Your task to perform on an android device: Go to battery settings Image 0: 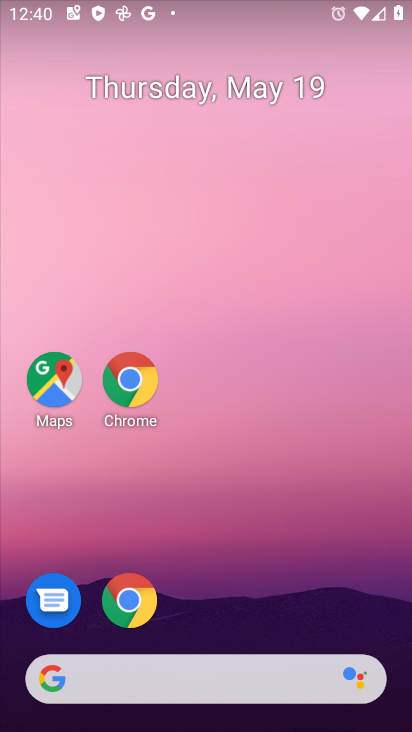
Step 0: drag from (372, 675) to (167, 196)
Your task to perform on an android device: Go to battery settings Image 1: 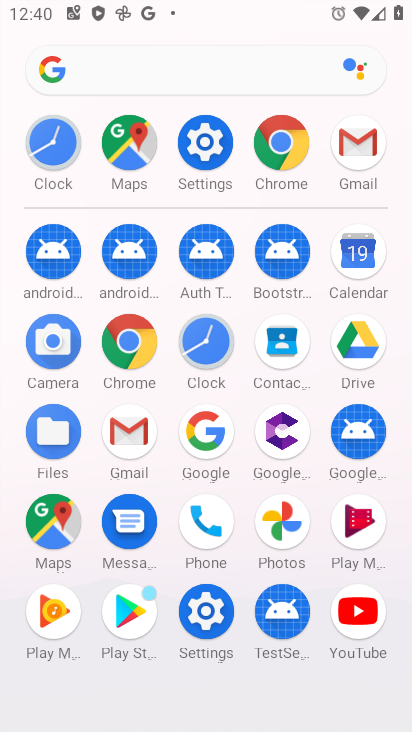
Step 1: click (197, 149)
Your task to perform on an android device: Go to battery settings Image 2: 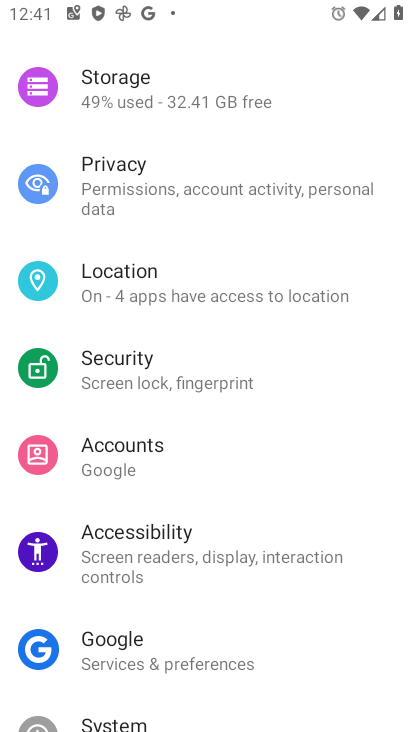
Step 2: drag from (128, 219) to (271, 613)
Your task to perform on an android device: Go to battery settings Image 3: 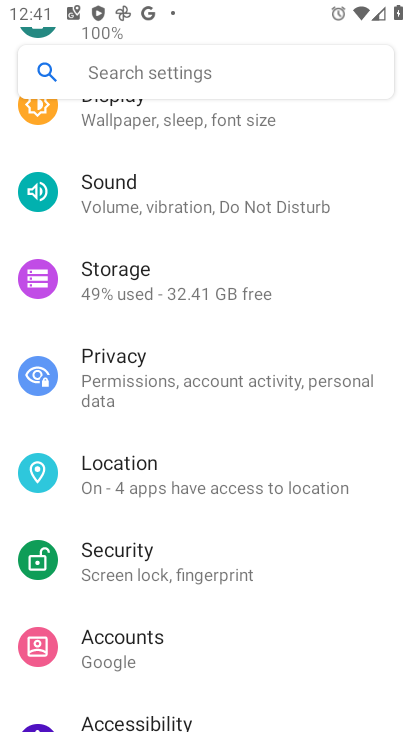
Step 3: drag from (131, 204) to (159, 465)
Your task to perform on an android device: Go to battery settings Image 4: 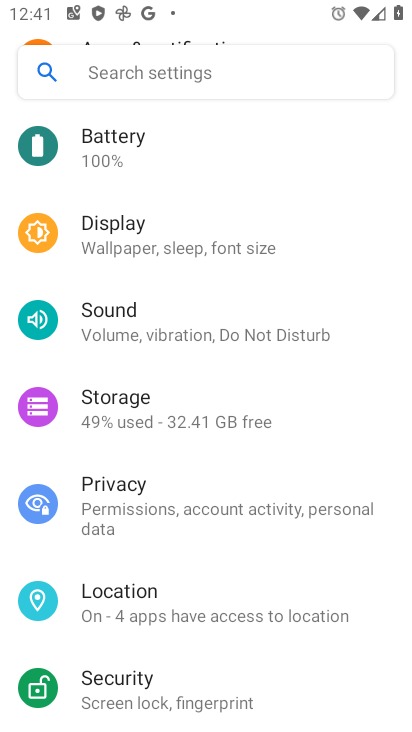
Step 4: drag from (115, 207) to (189, 470)
Your task to perform on an android device: Go to battery settings Image 5: 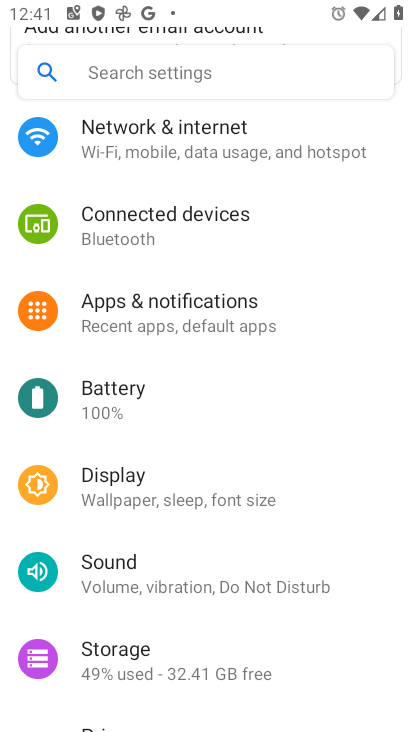
Step 5: drag from (126, 274) to (190, 504)
Your task to perform on an android device: Go to battery settings Image 6: 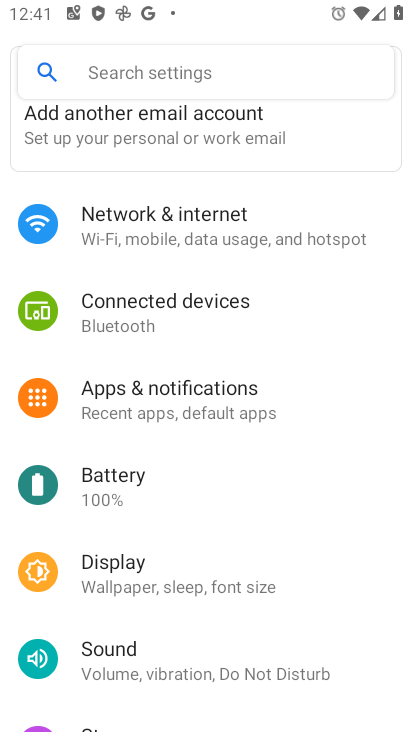
Step 6: click (68, 475)
Your task to perform on an android device: Go to battery settings Image 7: 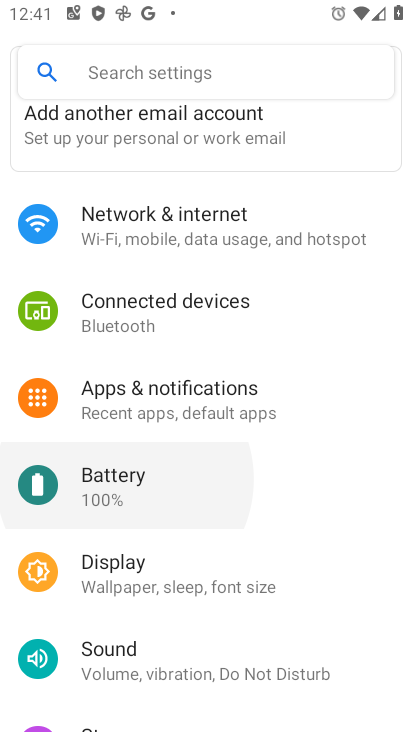
Step 7: click (92, 493)
Your task to perform on an android device: Go to battery settings Image 8: 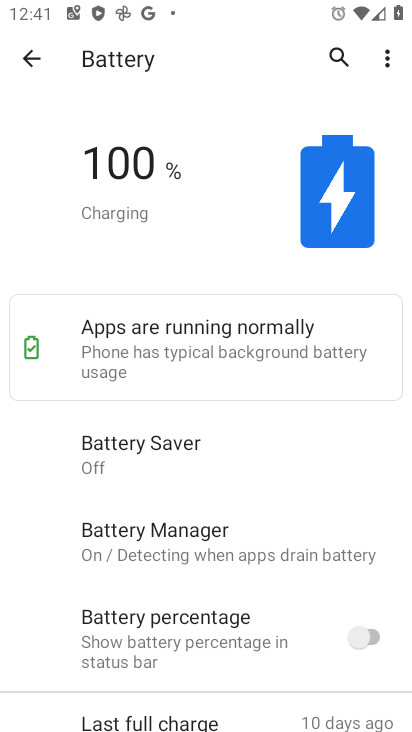
Step 8: task complete